Your task to perform on an android device: check data usage Image 0: 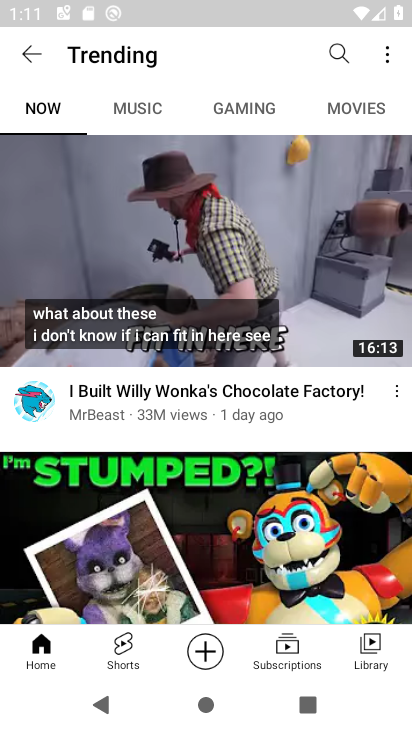
Step 0: press home button
Your task to perform on an android device: check data usage Image 1: 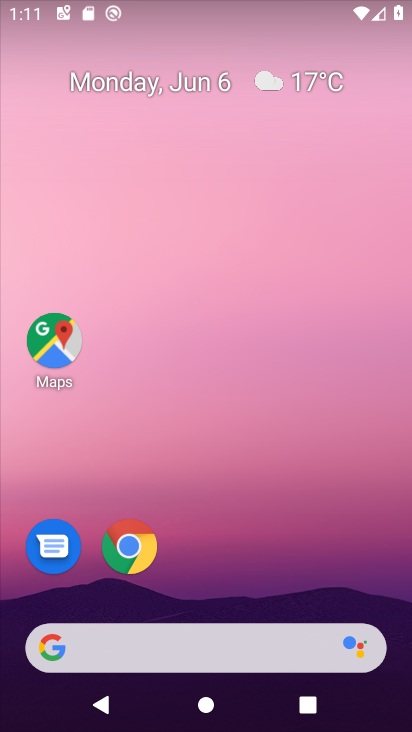
Step 1: drag from (256, 626) to (332, 95)
Your task to perform on an android device: check data usage Image 2: 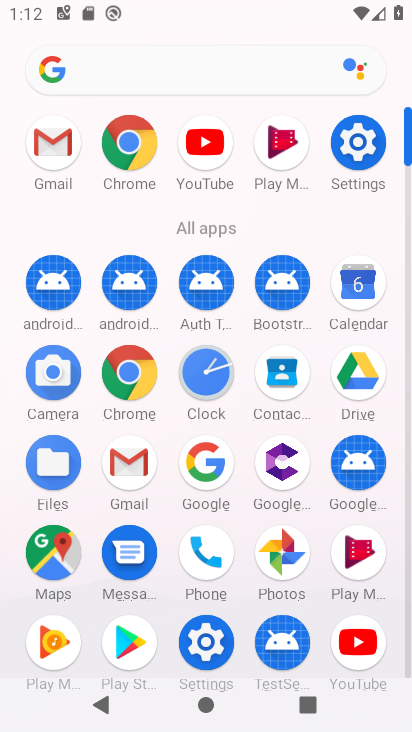
Step 2: click (356, 140)
Your task to perform on an android device: check data usage Image 3: 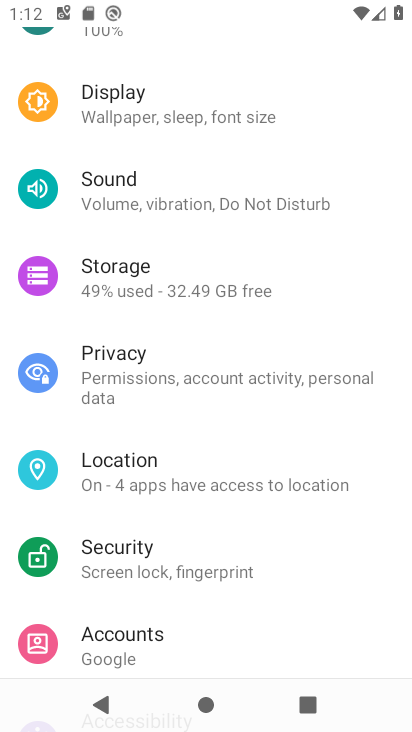
Step 3: drag from (178, 144) to (199, 678)
Your task to perform on an android device: check data usage Image 4: 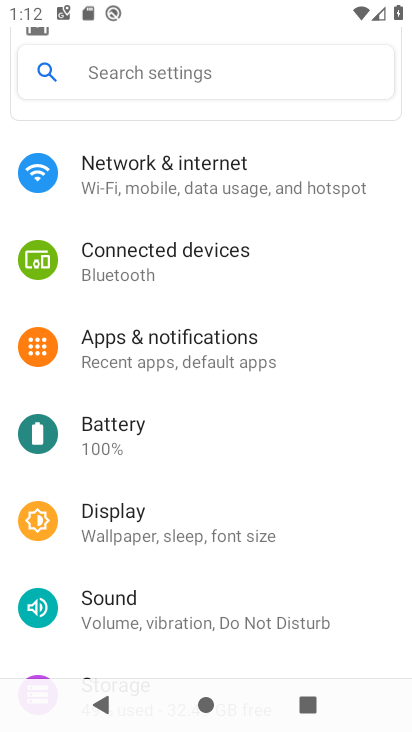
Step 4: drag from (142, 230) to (165, 372)
Your task to perform on an android device: check data usage Image 5: 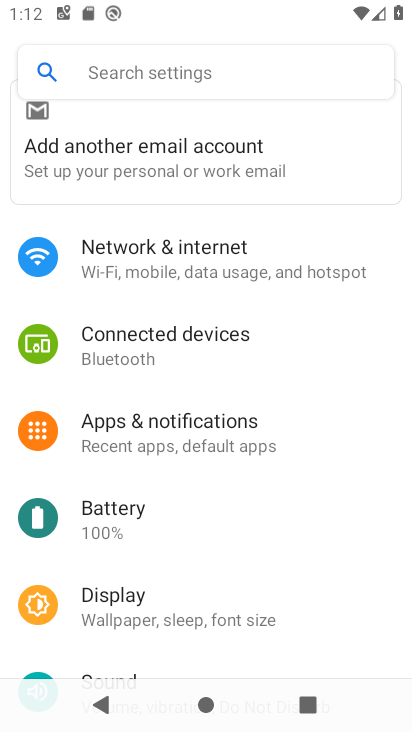
Step 5: click (185, 252)
Your task to perform on an android device: check data usage Image 6: 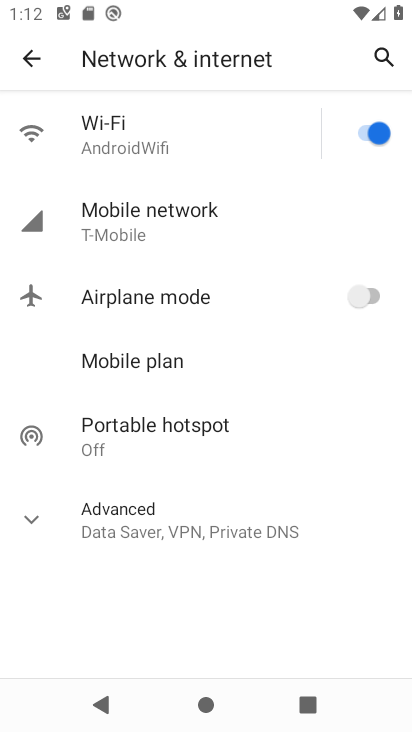
Step 6: click (151, 226)
Your task to perform on an android device: check data usage Image 7: 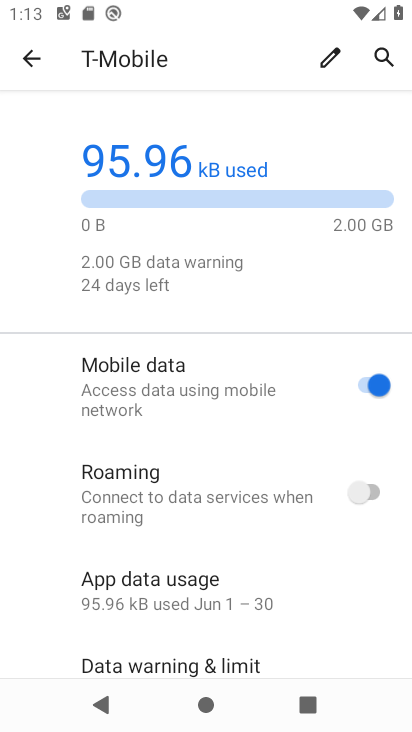
Step 7: task complete